Your task to perform on an android device: turn off smart reply in the gmail app Image 0: 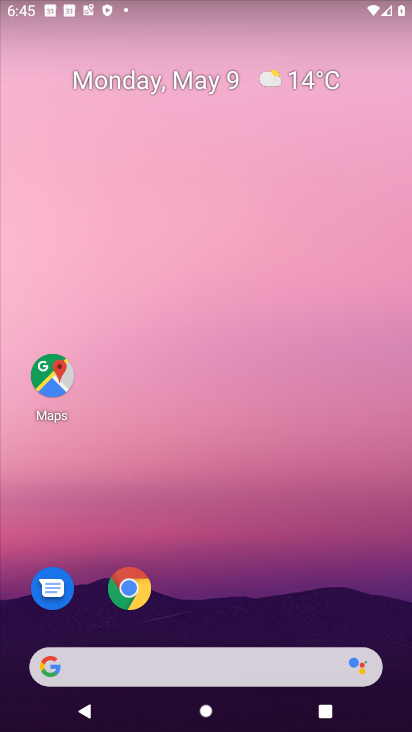
Step 0: drag from (349, 622) to (271, 108)
Your task to perform on an android device: turn off smart reply in the gmail app Image 1: 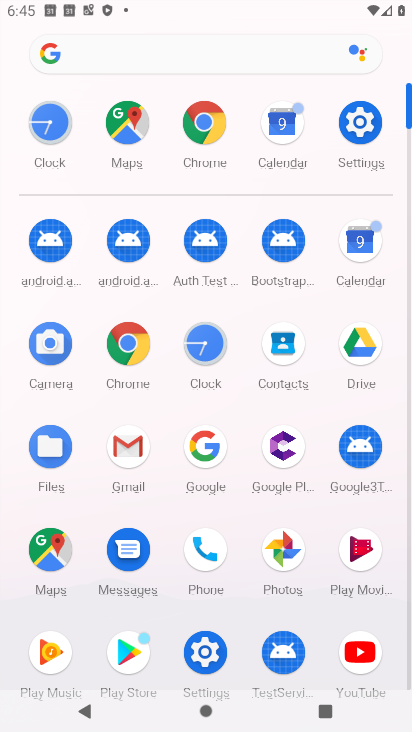
Step 1: click (116, 466)
Your task to perform on an android device: turn off smart reply in the gmail app Image 2: 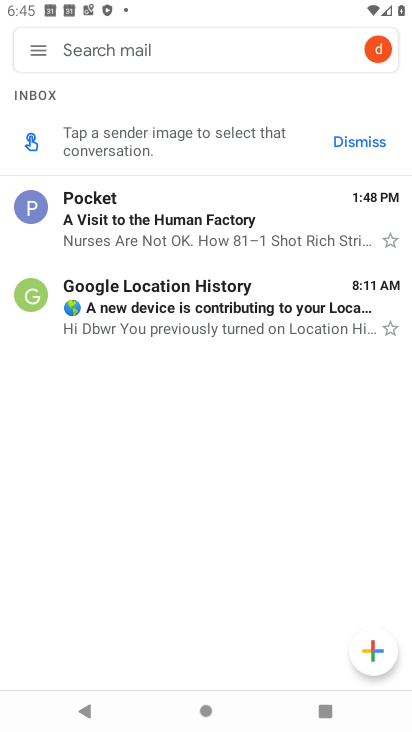
Step 2: click (35, 46)
Your task to perform on an android device: turn off smart reply in the gmail app Image 3: 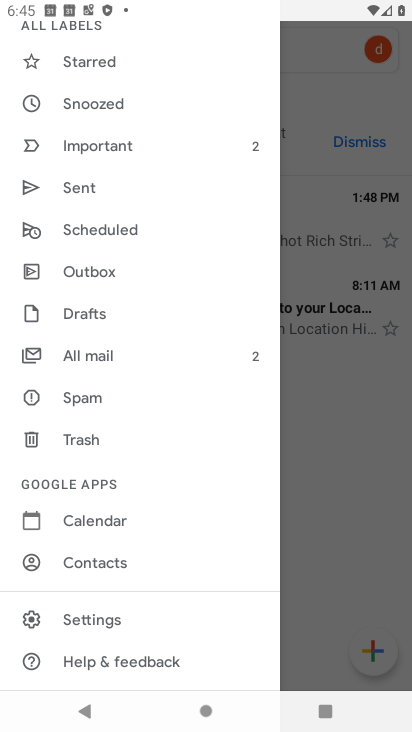
Step 3: click (93, 611)
Your task to perform on an android device: turn off smart reply in the gmail app Image 4: 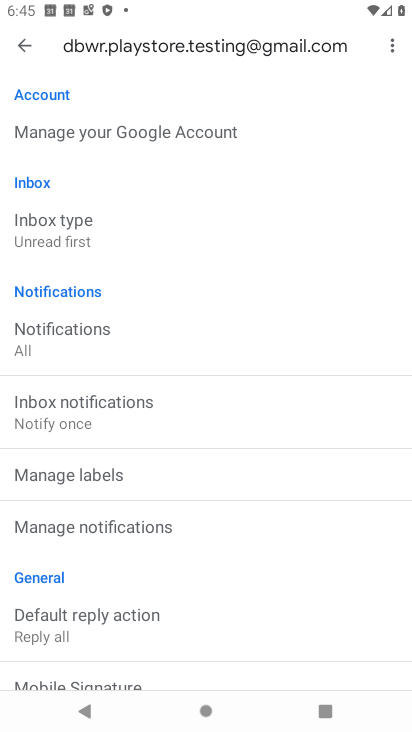
Step 4: drag from (160, 609) to (173, 50)
Your task to perform on an android device: turn off smart reply in the gmail app Image 5: 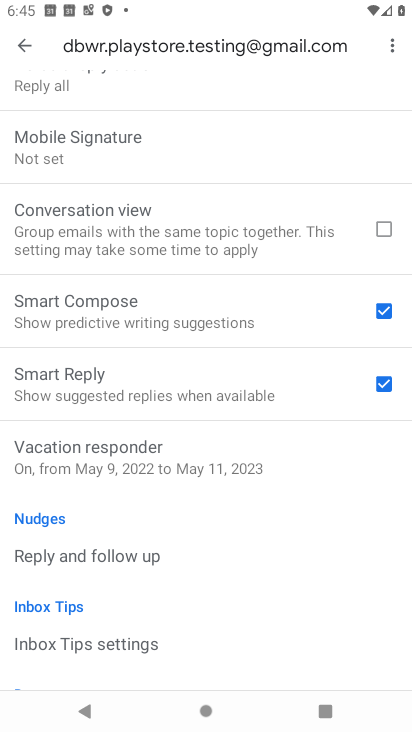
Step 5: drag from (191, 570) to (206, 395)
Your task to perform on an android device: turn off smart reply in the gmail app Image 6: 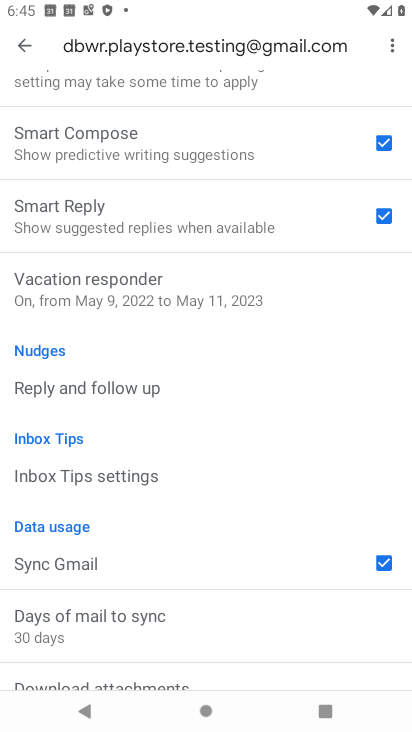
Step 6: click (257, 217)
Your task to perform on an android device: turn off smart reply in the gmail app Image 7: 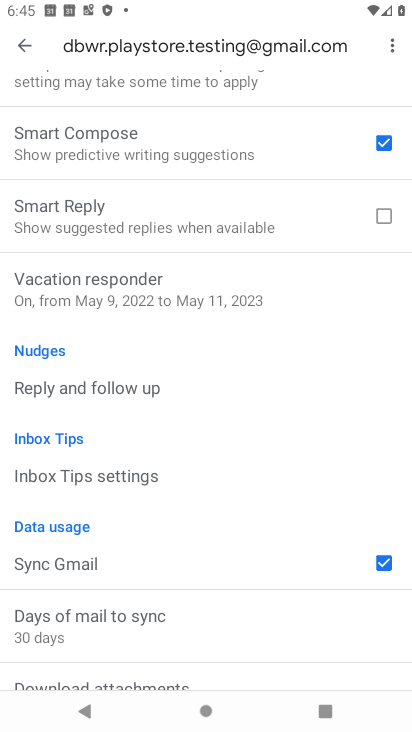
Step 7: task complete